Your task to perform on an android device: Open Android settings Image 0: 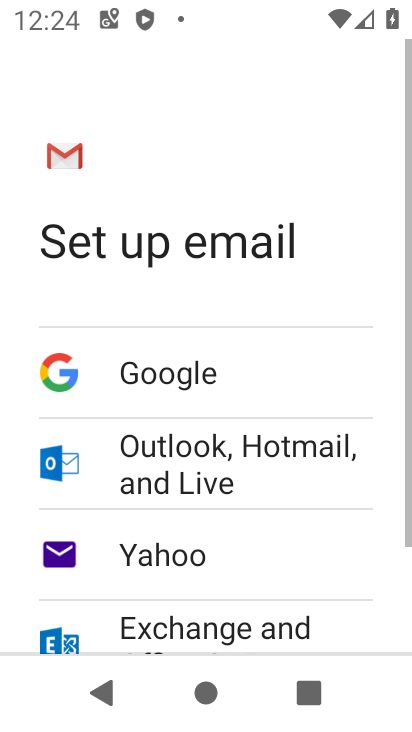
Step 0: drag from (346, 528) to (309, 314)
Your task to perform on an android device: Open Android settings Image 1: 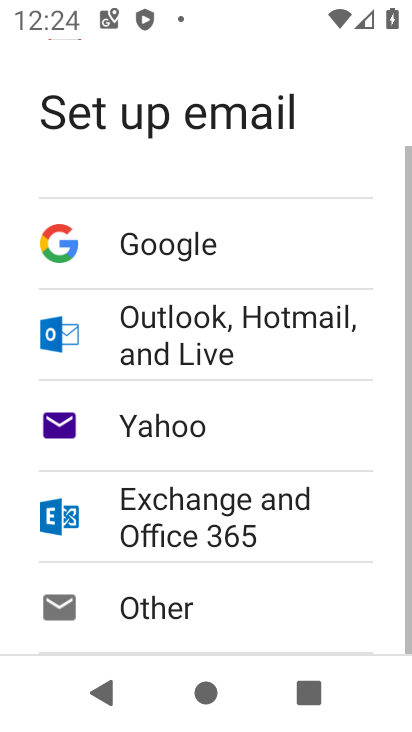
Step 1: press back button
Your task to perform on an android device: Open Android settings Image 2: 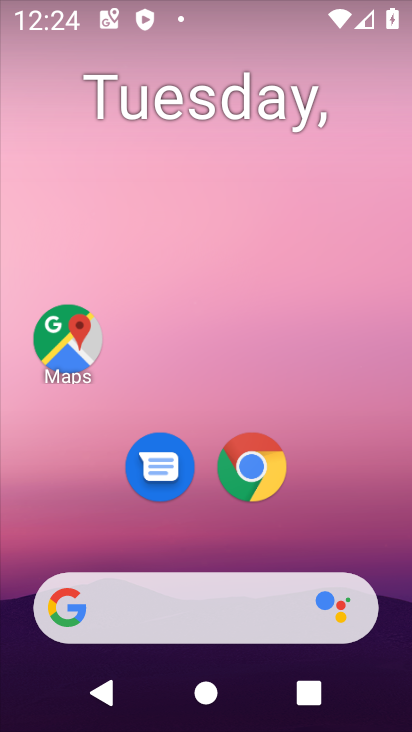
Step 2: drag from (328, 471) to (273, 15)
Your task to perform on an android device: Open Android settings Image 3: 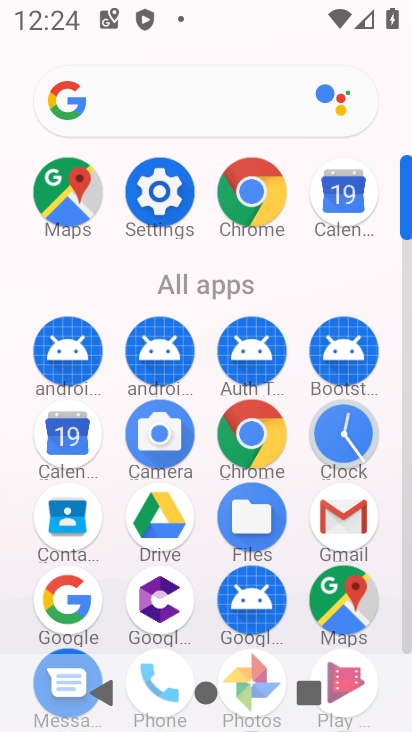
Step 3: click (158, 192)
Your task to perform on an android device: Open Android settings Image 4: 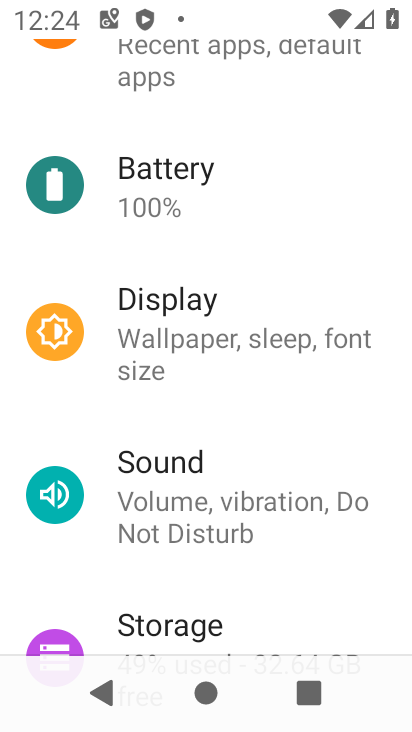
Step 4: drag from (217, 546) to (232, 138)
Your task to perform on an android device: Open Android settings Image 5: 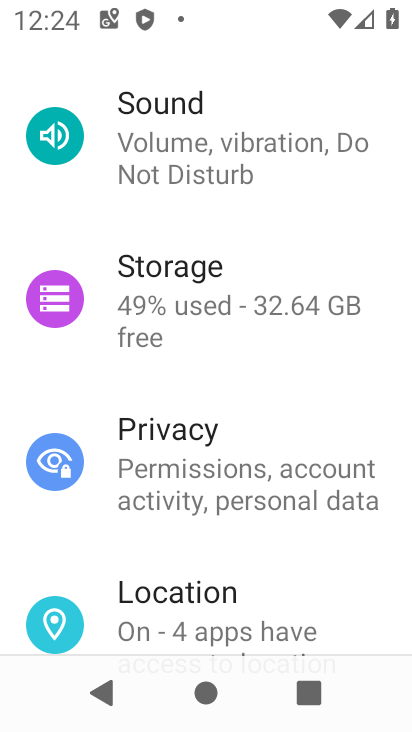
Step 5: drag from (189, 558) to (236, 139)
Your task to perform on an android device: Open Android settings Image 6: 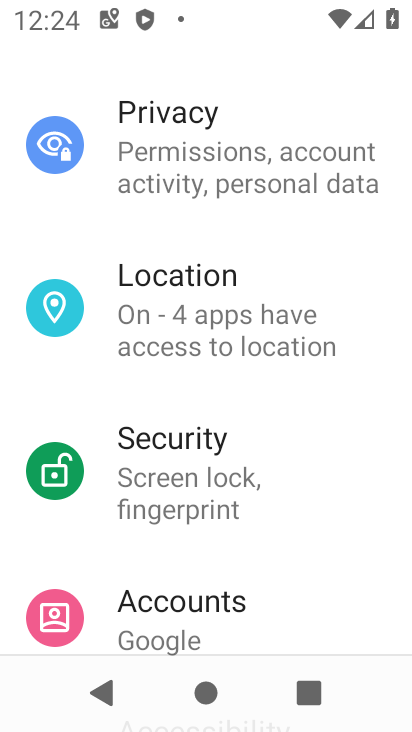
Step 6: drag from (232, 440) to (282, 102)
Your task to perform on an android device: Open Android settings Image 7: 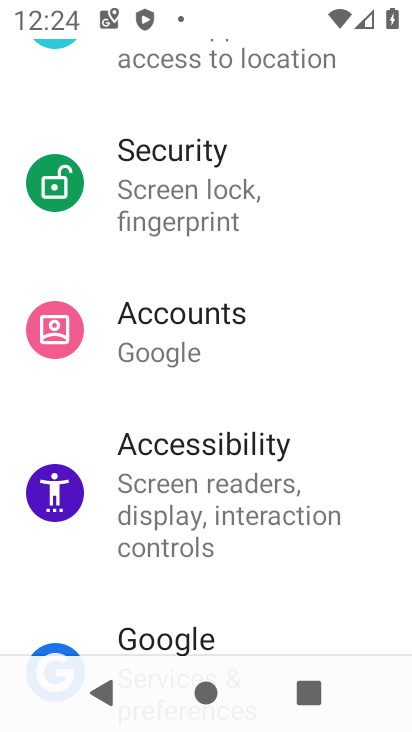
Step 7: drag from (226, 481) to (260, 127)
Your task to perform on an android device: Open Android settings Image 8: 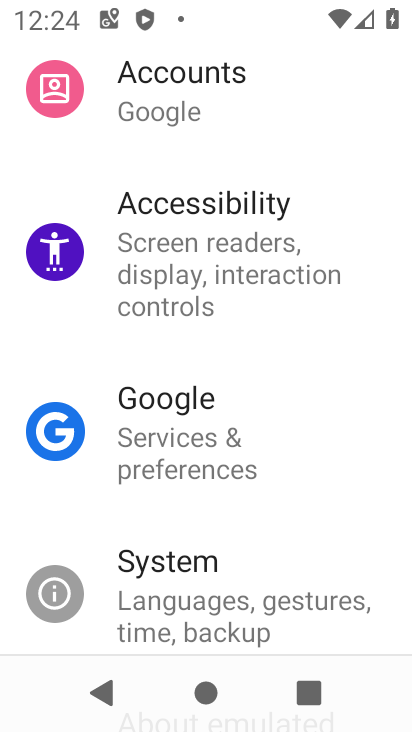
Step 8: drag from (242, 474) to (266, 106)
Your task to perform on an android device: Open Android settings Image 9: 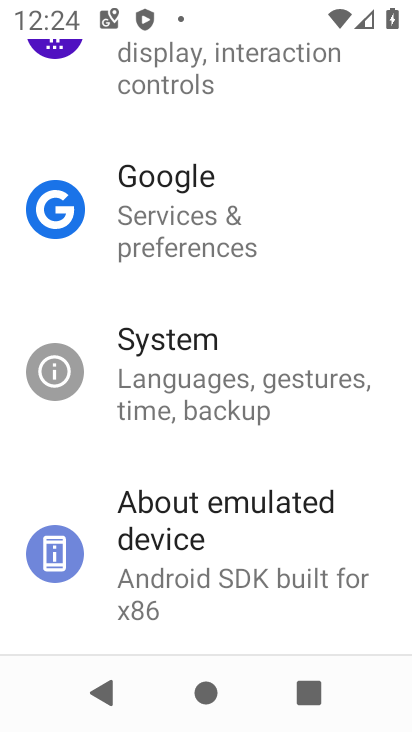
Step 9: drag from (243, 501) to (277, 142)
Your task to perform on an android device: Open Android settings Image 10: 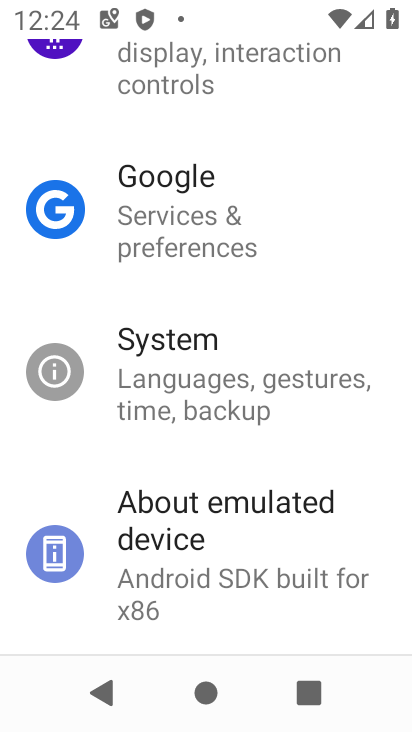
Step 10: click (142, 536)
Your task to perform on an android device: Open Android settings Image 11: 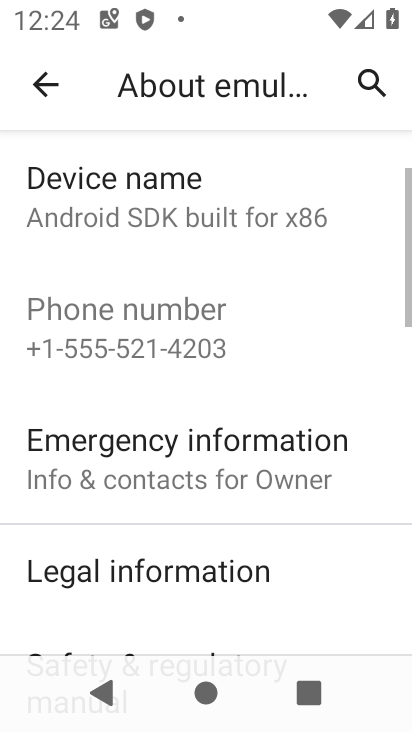
Step 11: drag from (302, 522) to (312, 295)
Your task to perform on an android device: Open Android settings Image 12: 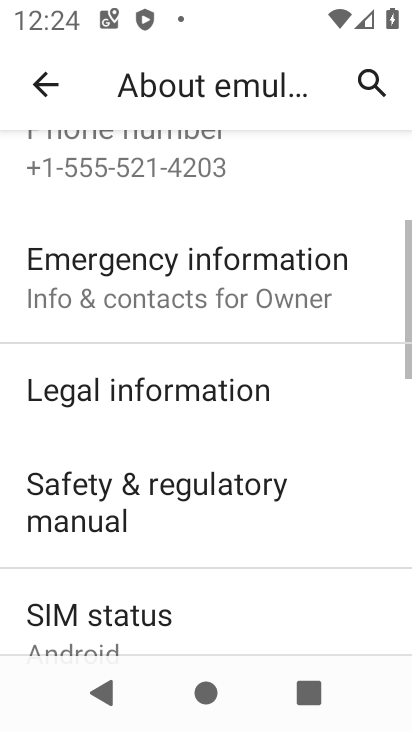
Step 12: click (60, 96)
Your task to perform on an android device: Open Android settings Image 13: 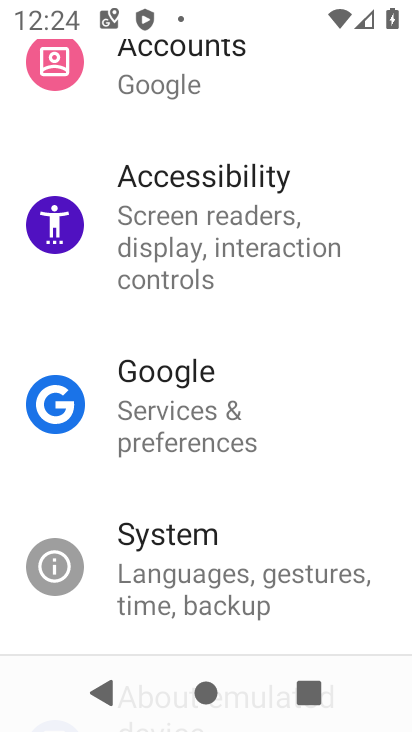
Step 13: task complete